Your task to perform on an android device: turn off javascript in the chrome app Image 0: 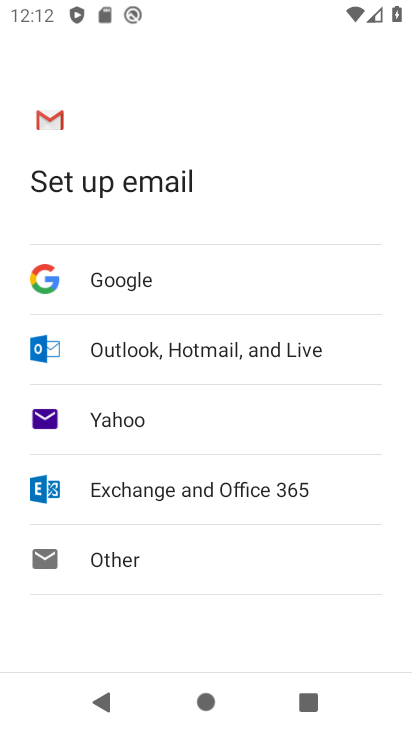
Step 0: press home button
Your task to perform on an android device: turn off javascript in the chrome app Image 1: 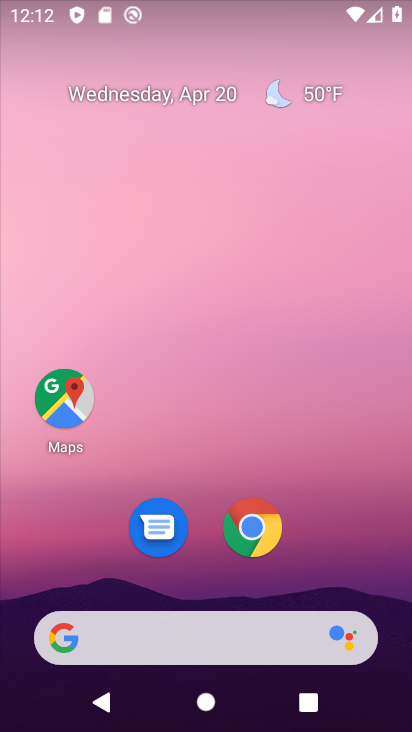
Step 1: click (258, 531)
Your task to perform on an android device: turn off javascript in the chrome app Image 2: 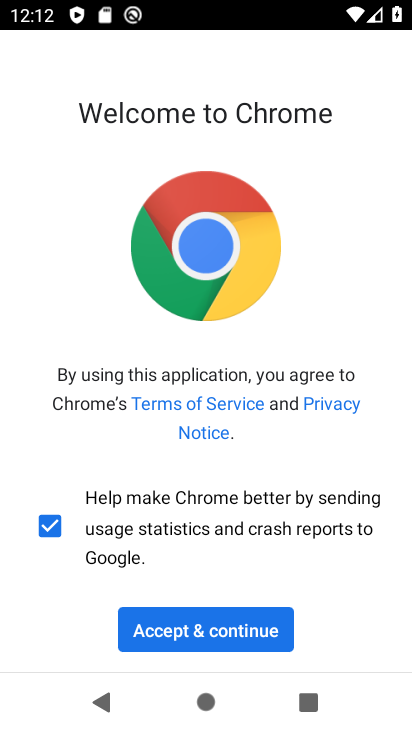
Step 2: click (211, 635)
Your task to perform on an android device: turn off javascript in the chrome app Image 3: 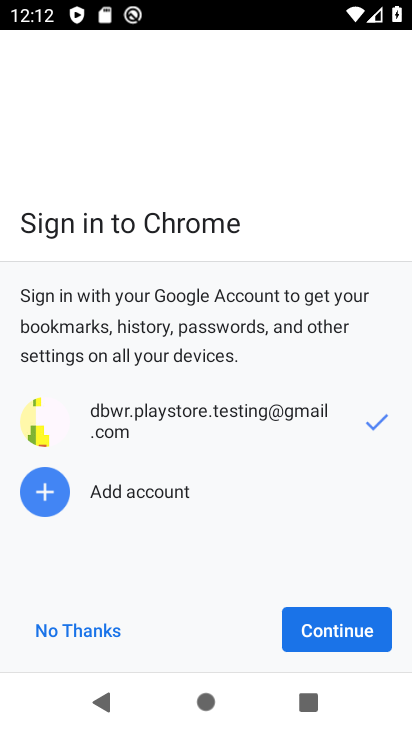
Step 3: click (66, 631)
Your task to perform on an android device: turn off javascript in the chrome app Image 4: 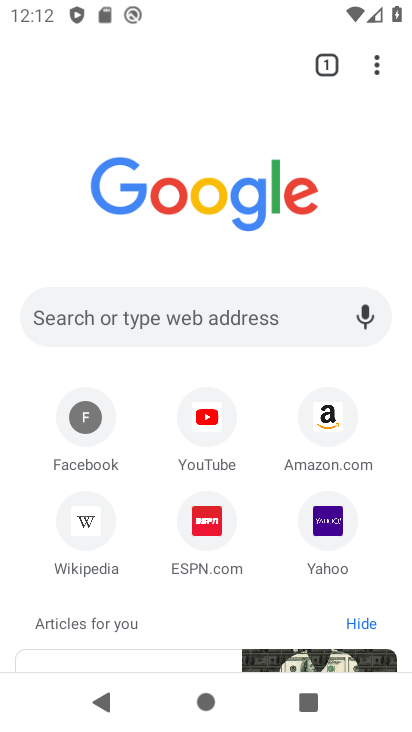
Step 4: click (379, 72)
Your task to perform on an android device: turn off javascript in the chrome app Image 5: 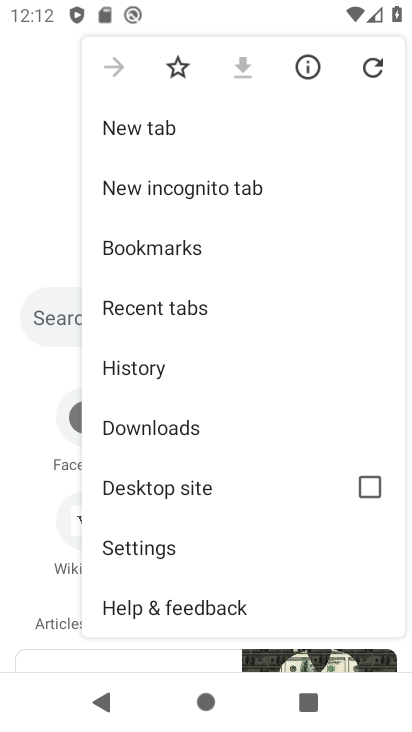
Step 5: click (157, 543)
Your task to perform on an android device: turn off javascript in the chrome app Image 6: 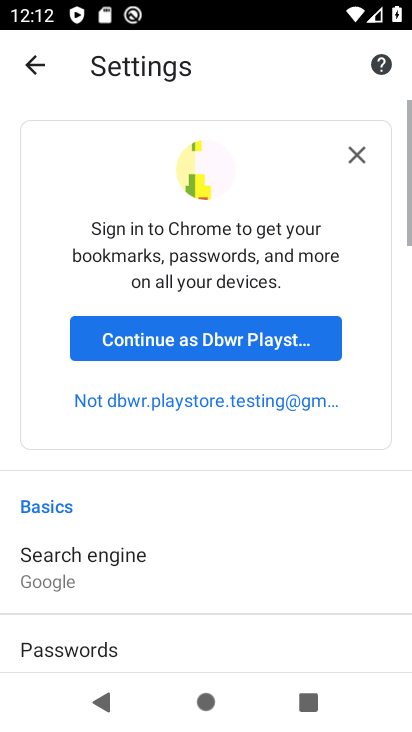
Step 6: drag from (165, 540) to (147, 118)
Your task to perform on an android device: turn off javascript in the chrome app Image 7: 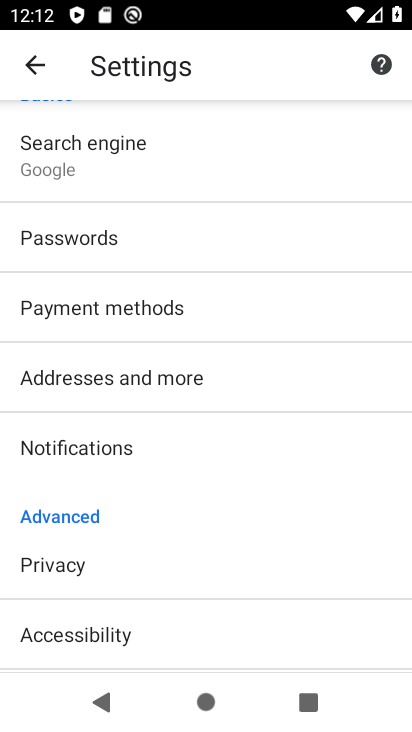
Step 7: drag from (161, 601) to (151, 247)
Your task to perform on an android device: turn off javascript in the chrome app Image 8: 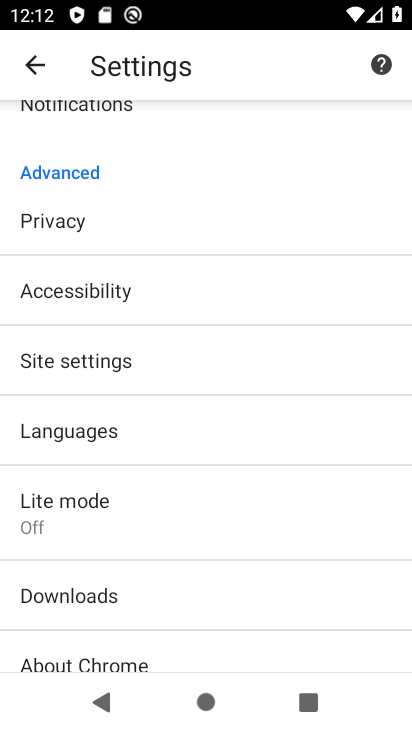
Step 8: click (78, 364)
Your task to perform on an android device: turn off javascript in the chrome app Image 9: 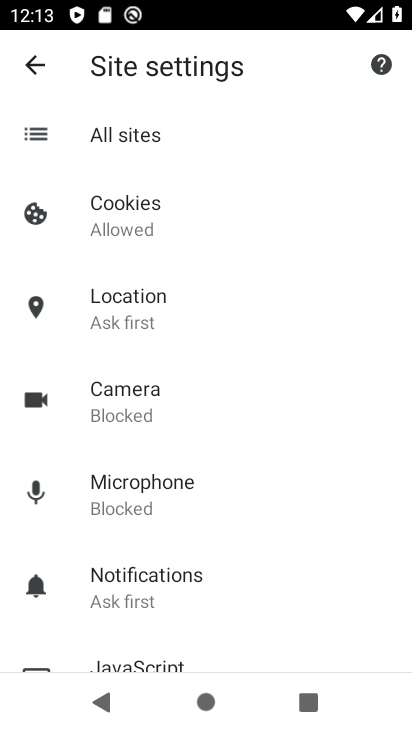
Step 9: drag from (232, 575) to (240, 313)
Your task to perform on an android device: turn off javascript in the chrome app Image 10: 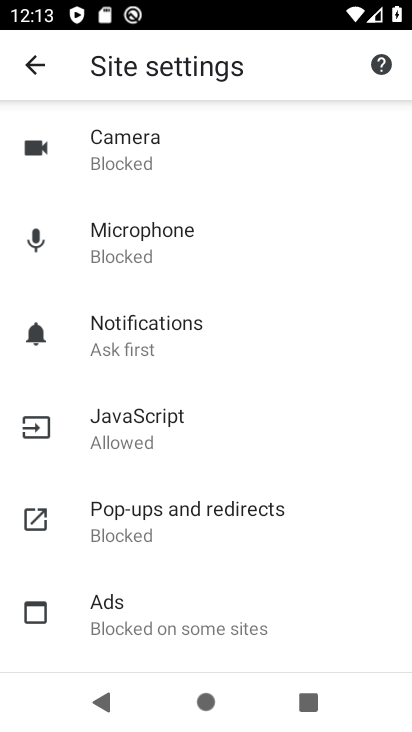
Step 10: click (118, 433)
Your task to perform on an android device: turn off javascript in the chrome app Image 11: 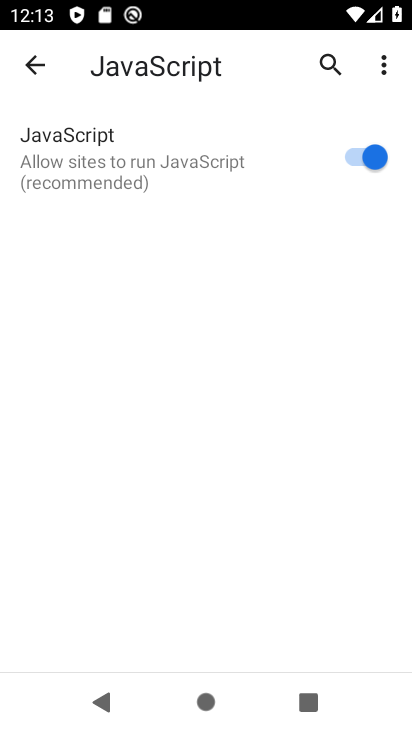
Step 11: click (355, 157)
Your task to perform on an android device: turn off javascript in the chrome app Image 12: 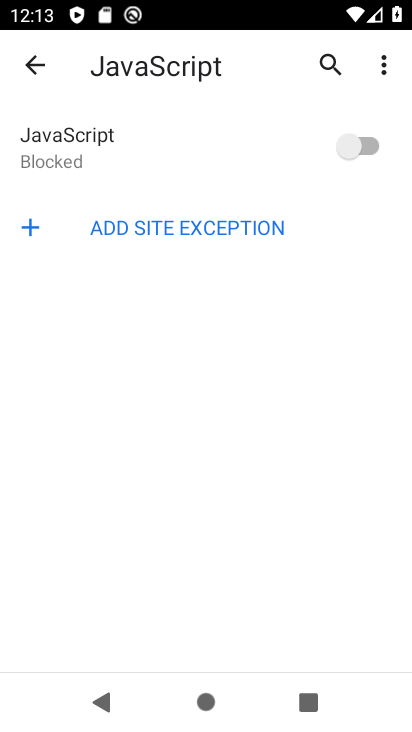
Step 12: task complete